Your task to perform on an android device: turn on location history Image 0: 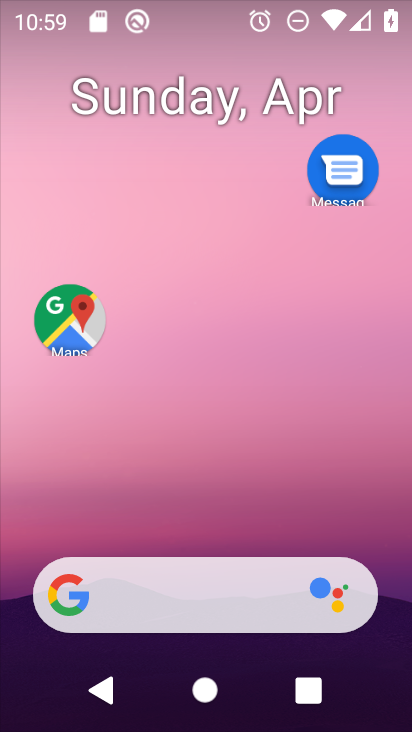
Step 0: drag from (180, 522) to (174, 139)
Your task to perform on an android device: turn on location history Image 1: 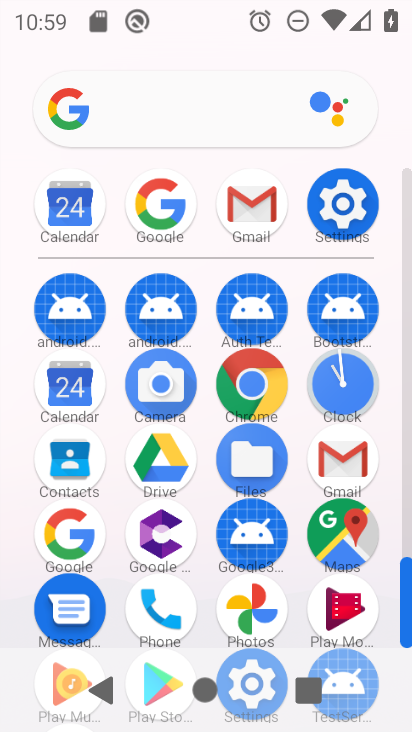
Step 1: drag from (222, 292) to (222, 163)
Your task to perform on an android device: turn on location history Image 2: 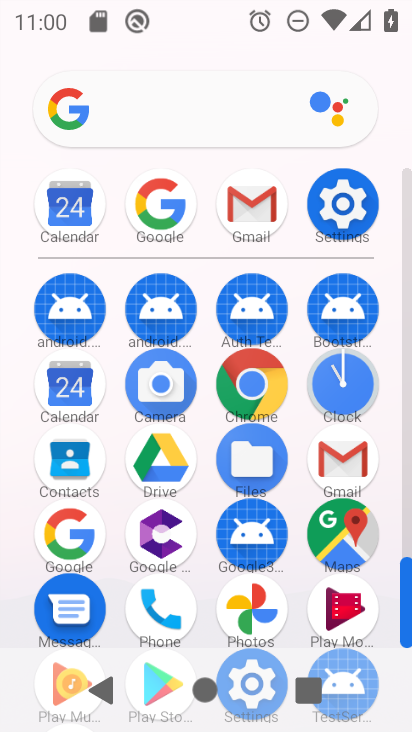
Step 2: click (365, 201)
Your task to perform on an android device: turn on location history Image 3: 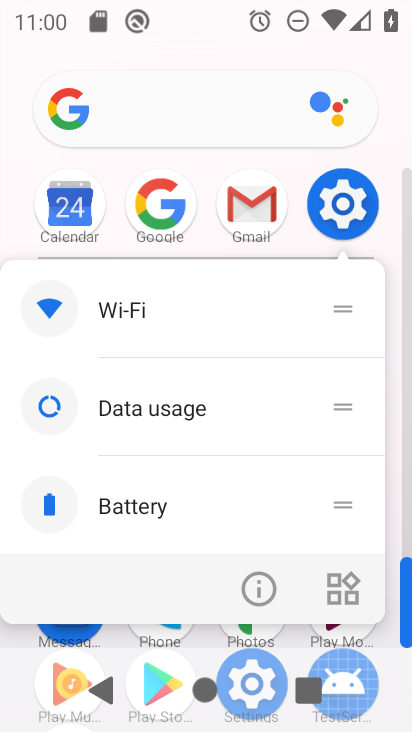
Step 3: click (265, 574)
Your task to perform on an android device: turn on location history Image 4: 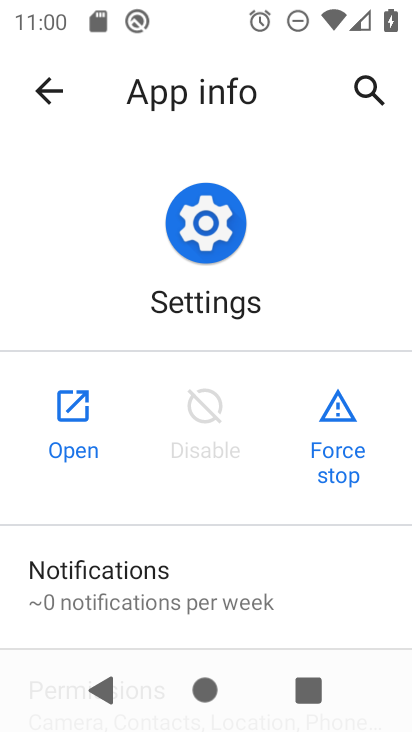
Step 4: click (76, 405)
Your task to perform on an android device: turn on location history Image 5: 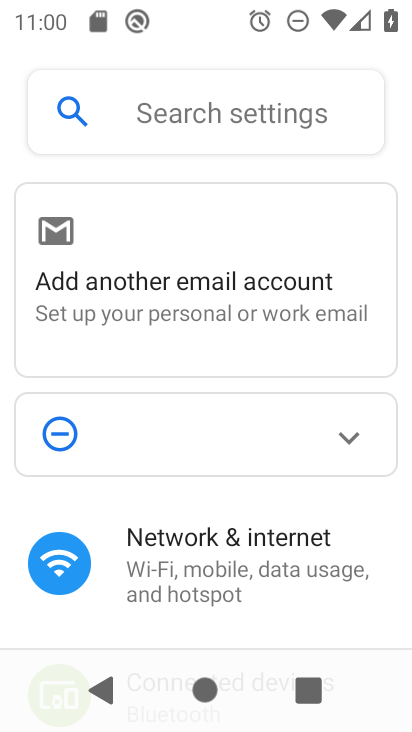
Step 5: drag from (214, 521) to (239, 47)
Your task to perform on an android device: turn on location history Image 6: 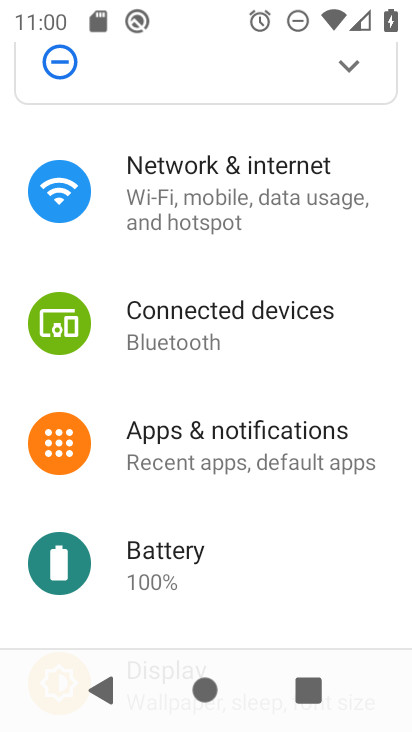
Step 6: drag from (227, 309) to (235, 9)
Your task to perform on an android device: turn on location history Image 7: 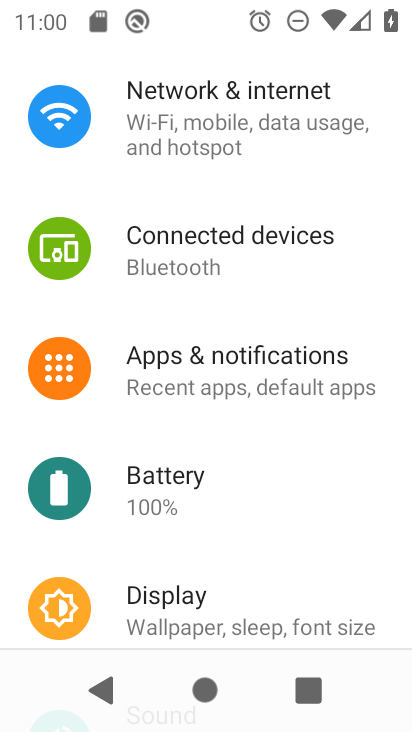
Step 7: drag from (197, 518) to (245, 177)
Your task to perform on an android device: turn on location history Image 8: 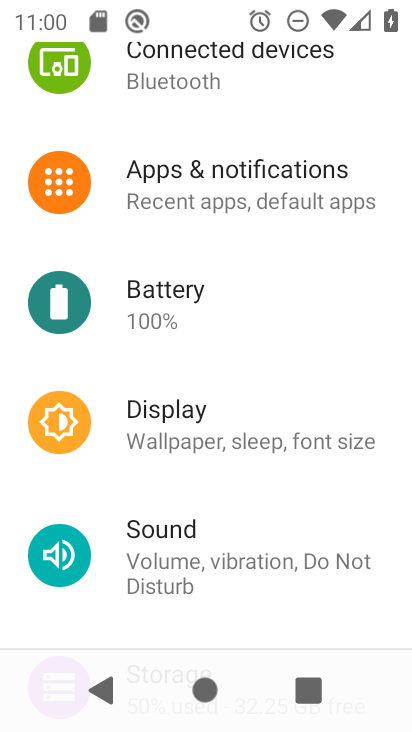
Step 8: drag from (202, 495) to (222, 99)
Your task to perform on an android device: turn on location history Image 9: 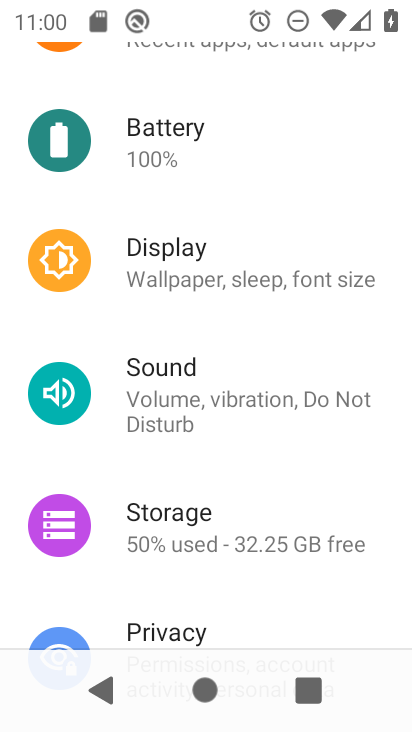
Step 9: drag from (223, 475) to (277, 109)
Your task to perform on an android device: turn on location history Image 10: 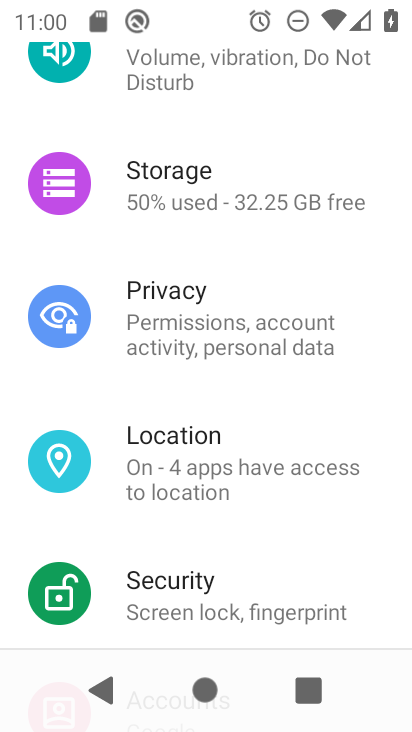
Step 10: click (167, 475)
Your task to perform on an android device: turn on location history Image 11: 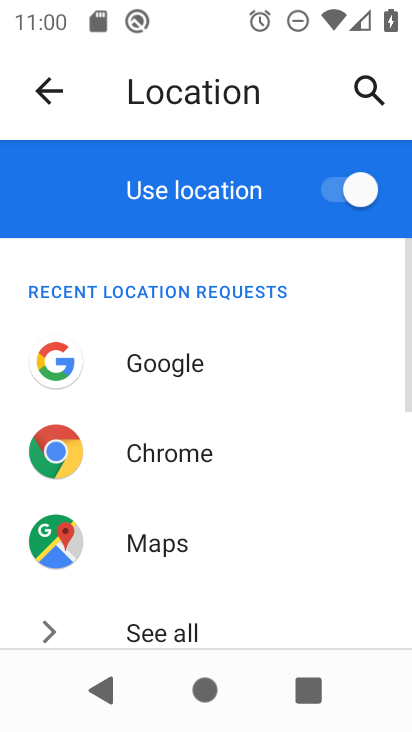
Step 11: task complete